Your task to perform on an android device: turn notification dots on Image 0: 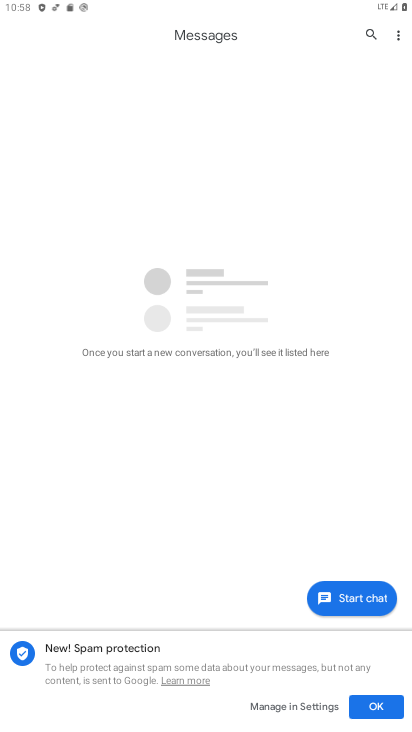
Step 0: press back button
Your task to perform on an android device: turn notification dots on Image 1: 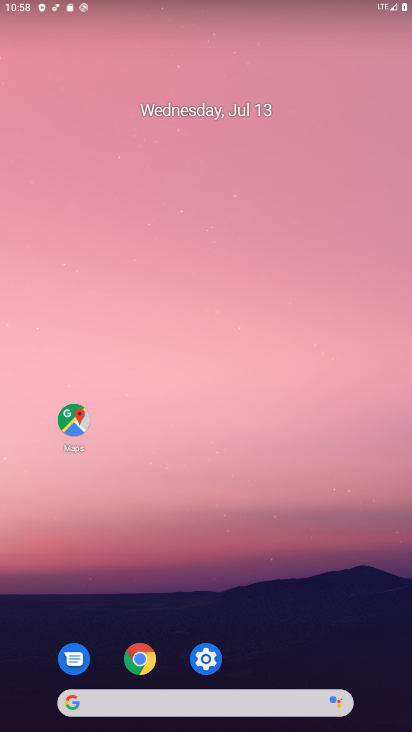
Step 1: drag from (220, 0) to (270, 4)
Your task to perform on an android device: turn notification dots on Image 2: 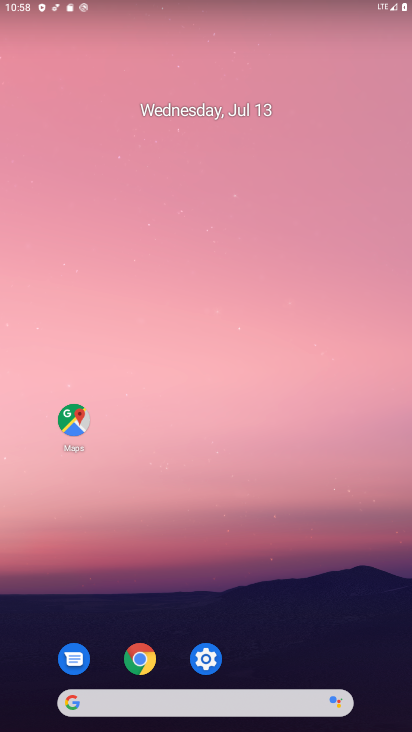
Step 2: click (76, 6)
Your task to perform on an android device: turn notification dots on Image 3: 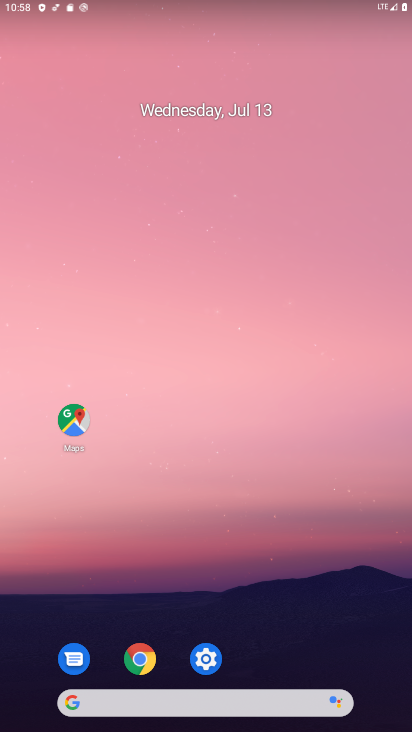
Step 3: drag from (238, 636) to (176, 160)
Your task to perform on an android device: turn notification dots on Image 4: 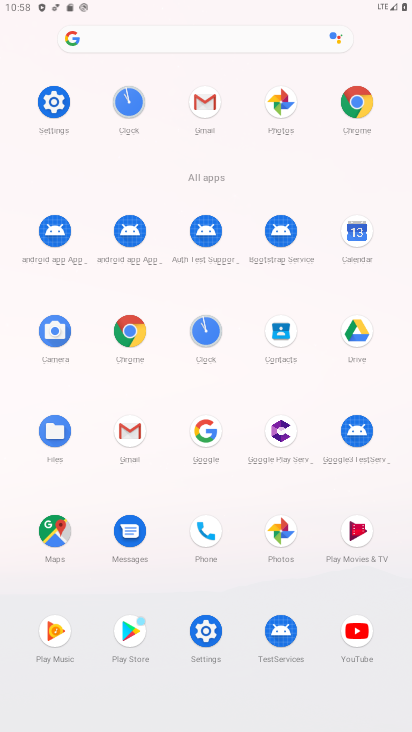
Step 4: click (205, 626)
Your task to perform on an android device: turn notification dots on Image 5: 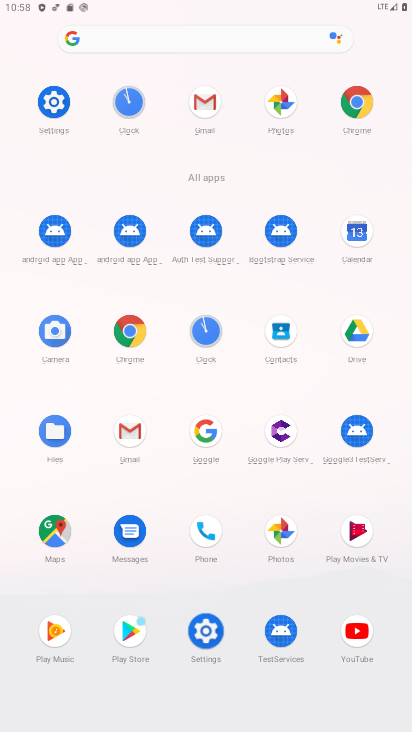
Step 5: click (205, 626)
Your task to perform on an android device: turn notification dots on Image 6: 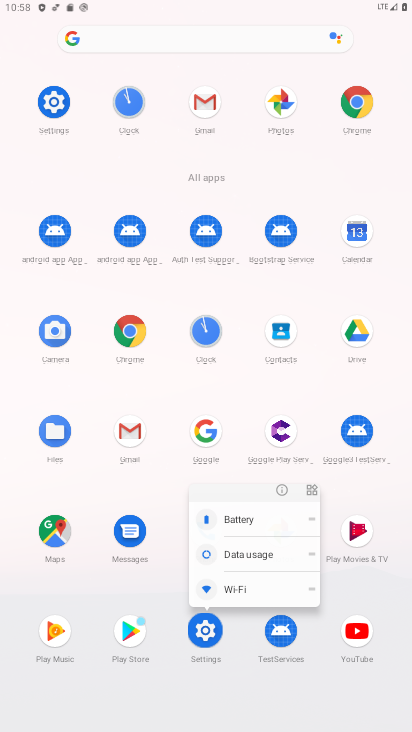
Step 6: click (205, 626)
Your task to perform on an android device: turn notification dots on Image 7: 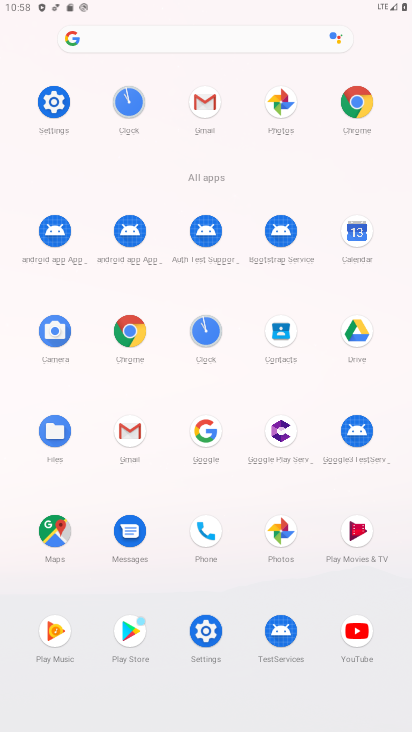
Step 7: click (205, 626)
Your task to perform on an android device: turn notification dots on Image 8: 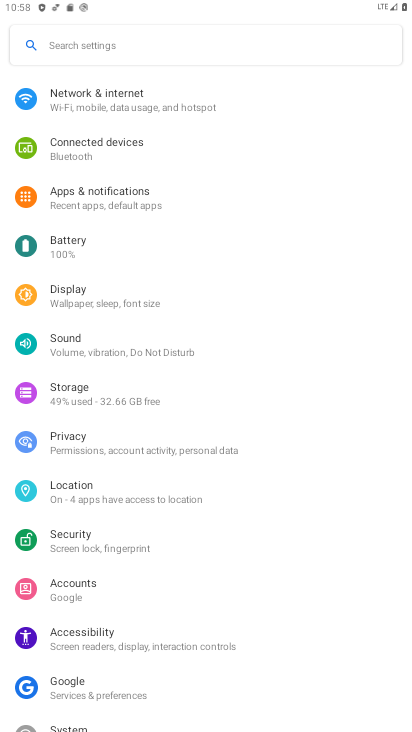
Step 8: click (205, 626)
Your task to perform on an android device: turn notification dots on Image 9: 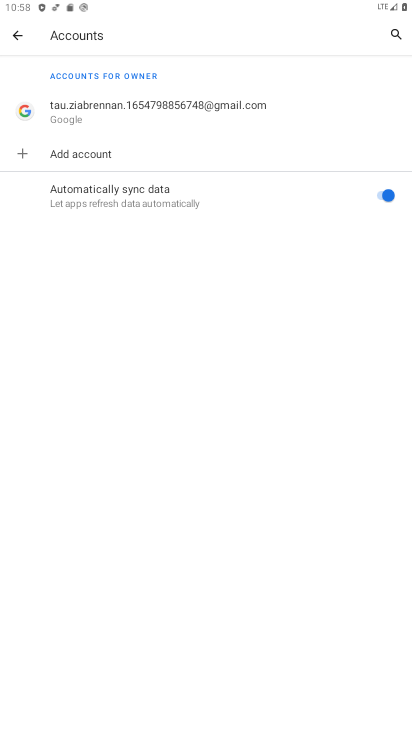
Step 9: click (19, 33)
Your task to perform on an android device: turn notification dots on Image 10: 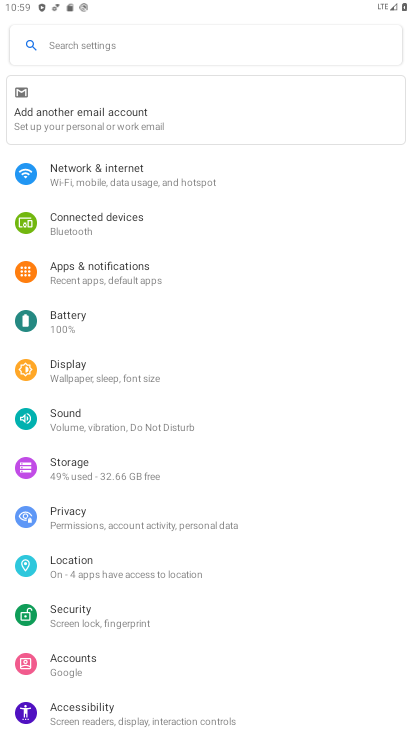
Step 10: click (107, 272)
Your task to perform on an android device: turn notification dots on Image 11: 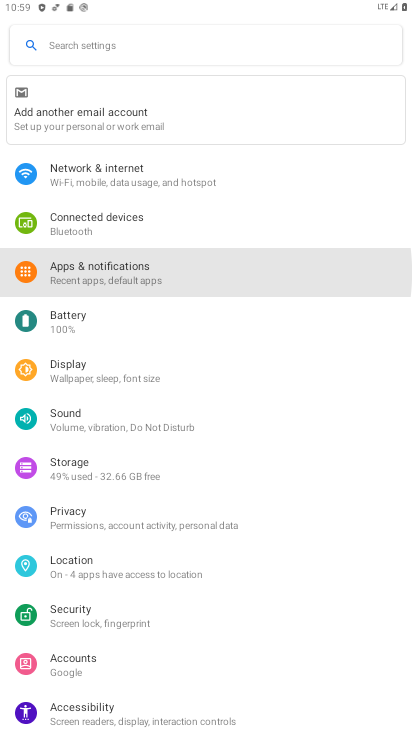
Step 11: click (107, 272)
Your task to perform on an android device: turn notification dots on Image 12: 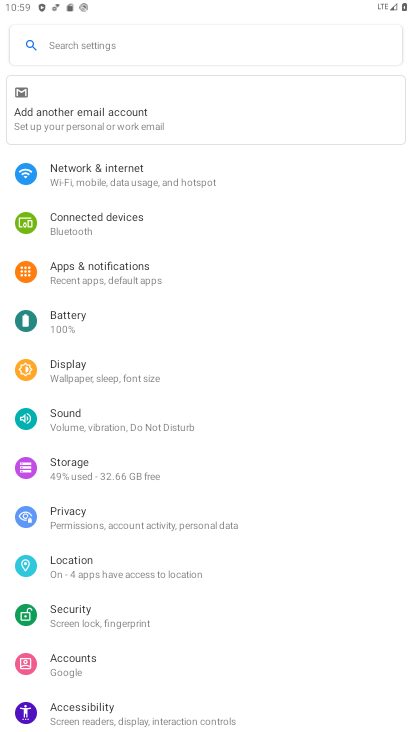
Step 12: click (107, 272)
Your task to perform on an android device: turn notification dots on Image 13: 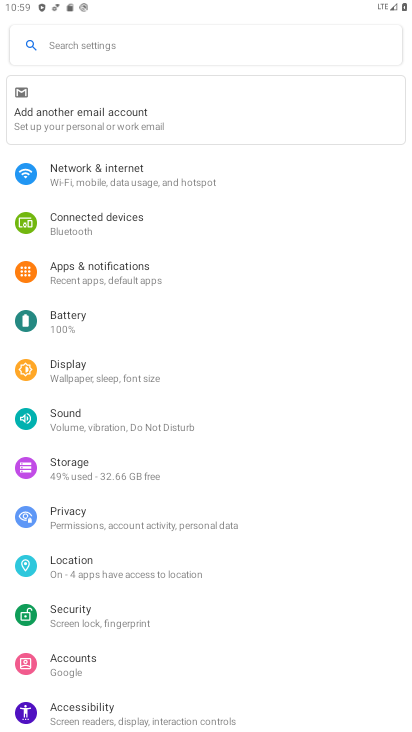
Step 13: click (107, 272)
Your task to perform on an android device: turn notification dots on Image 14: 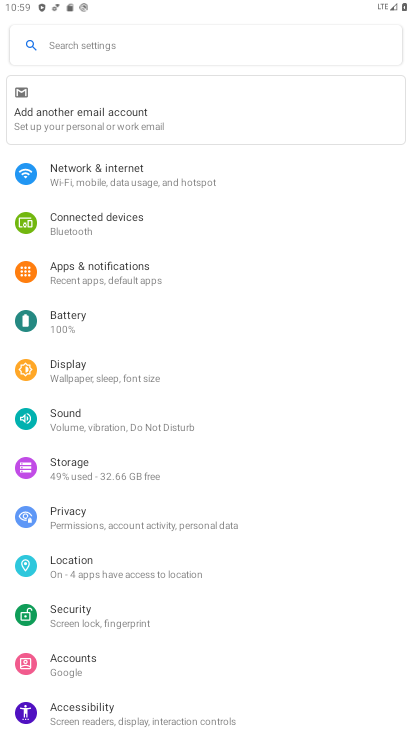
Step 14: click (108, 273)
Your task to perform on an android device: turn notification dots on Image 15: 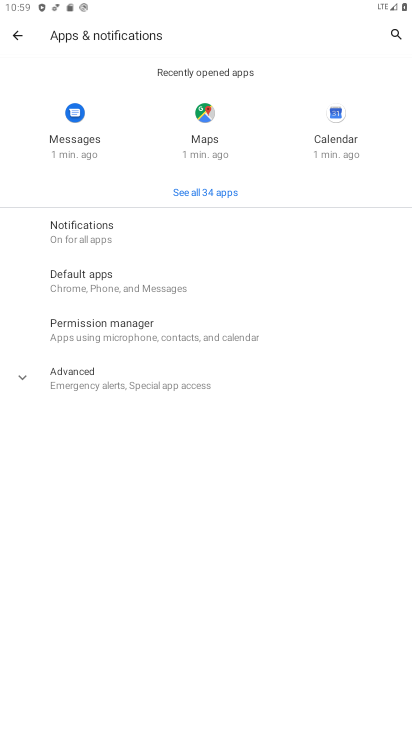
Step 15: click (78, 220)
Your task to perform on an android device: turn notification dots on Image 16: 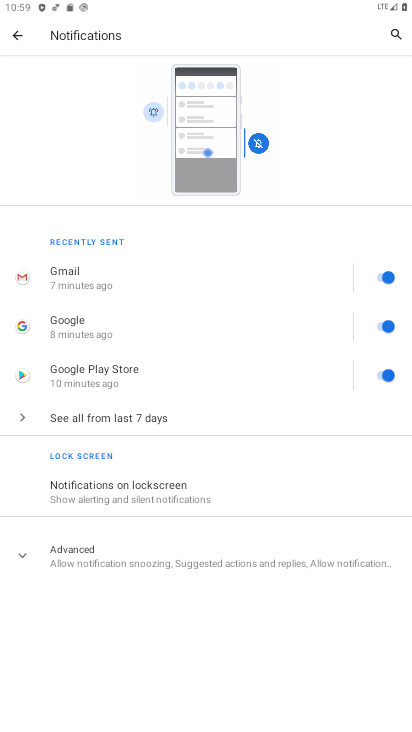
Step 16: click (97, 496)
Your task to perform on an android device: turn notification dots on Image 17: 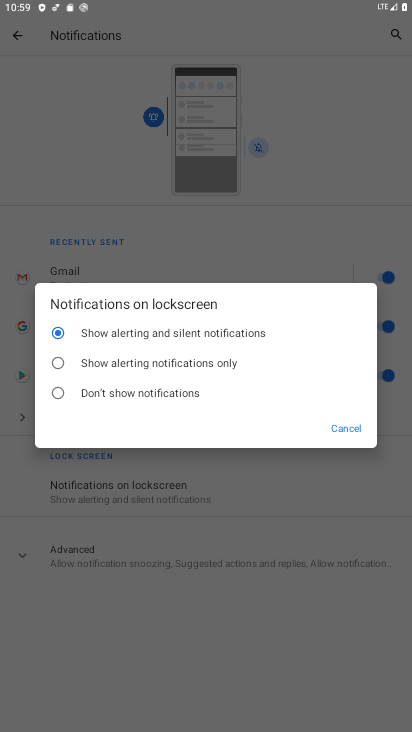
Step 17: click (349, 428)
Your task to perform on an android device: turn notification dots on Image 18: 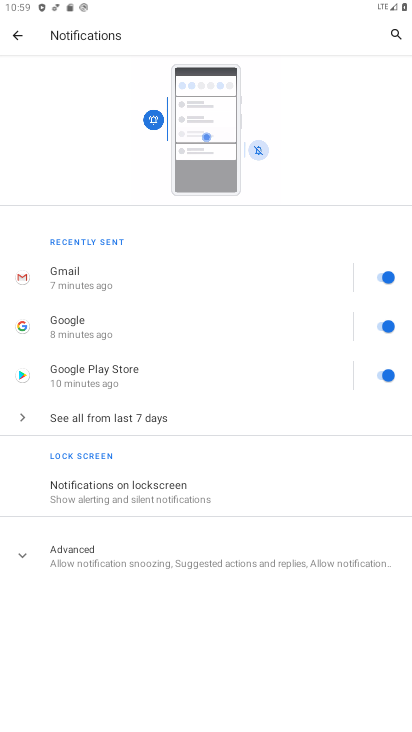
Step 18: click (87, 550)
Your task to perform on an android device: turn notification dots on Image 19: 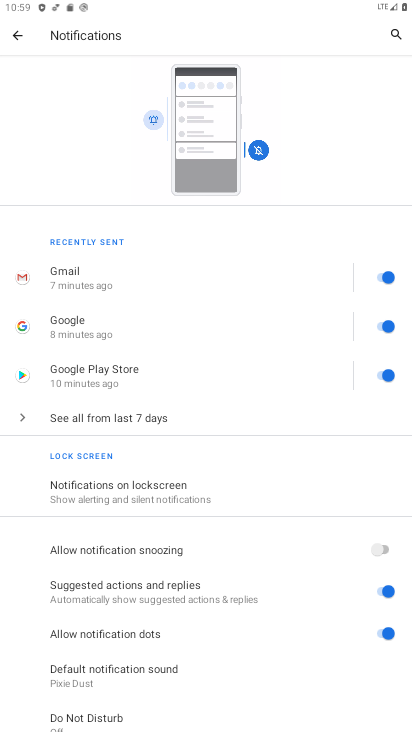
Step 19: click (251, 363)
Your task to perform on an android device: turn notification dots on Image 20: 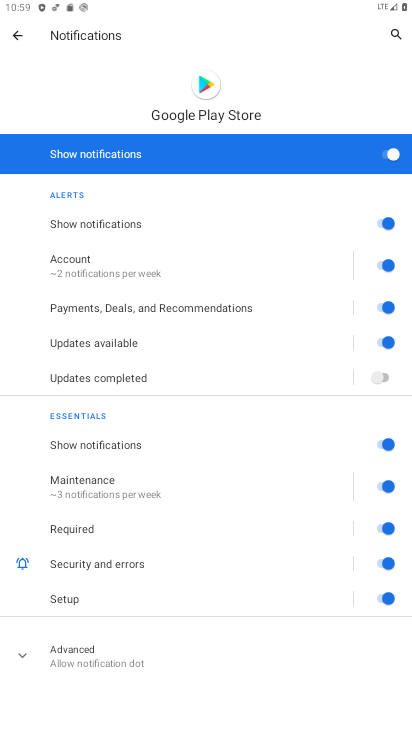
Step 20: click (250, 115)
Your task to perform on an android device: turn notification dots on Image 21: 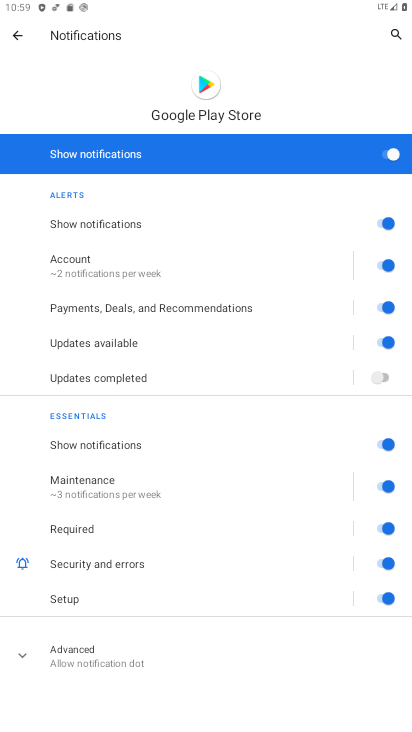
Step 21: drag from (226, 211) to (210, 30)
Your task to perform on an android device: turn notification dots on Image 22: 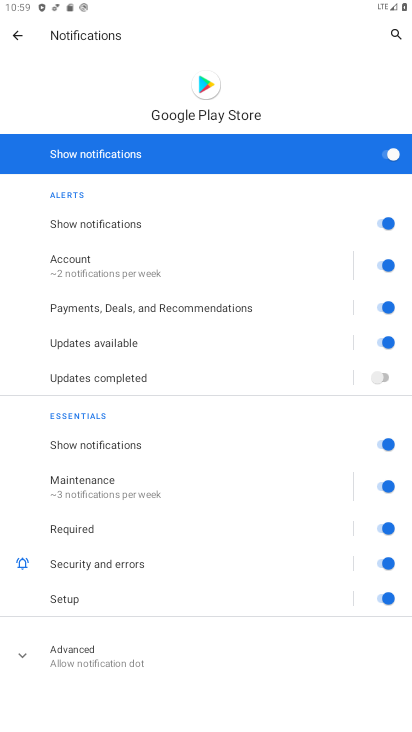
Step 22: click (226, 17)
Your task to perform on an android device: turn notification dots on Image 23: 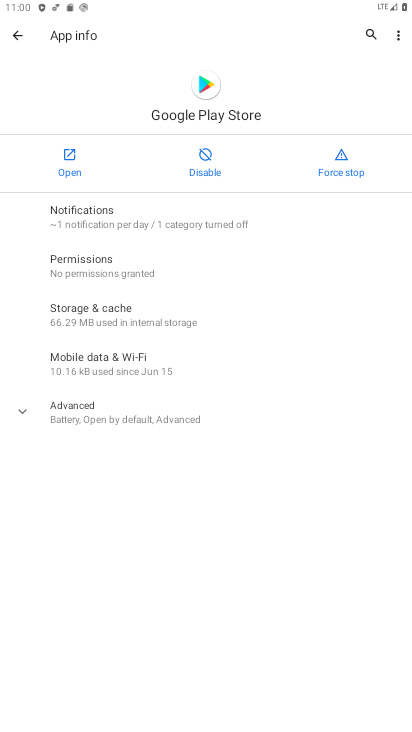
Step 23: click (20, 33)
Your task to perform on an android device: turn notification dots on Image 24: 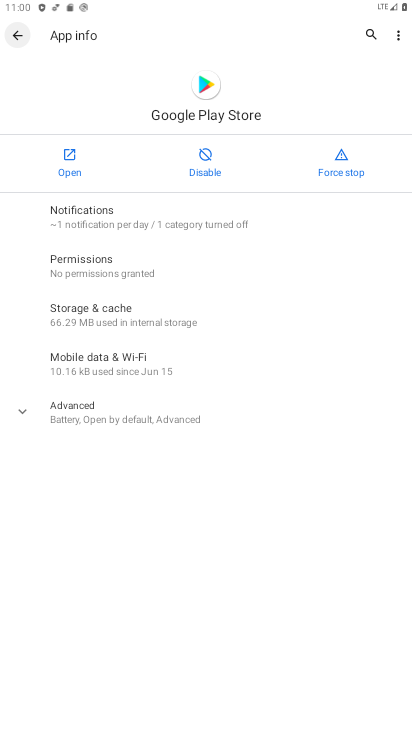
Step 24: click (19, 32)
Your task to perform on an android device: turn notification dots on Image 25: 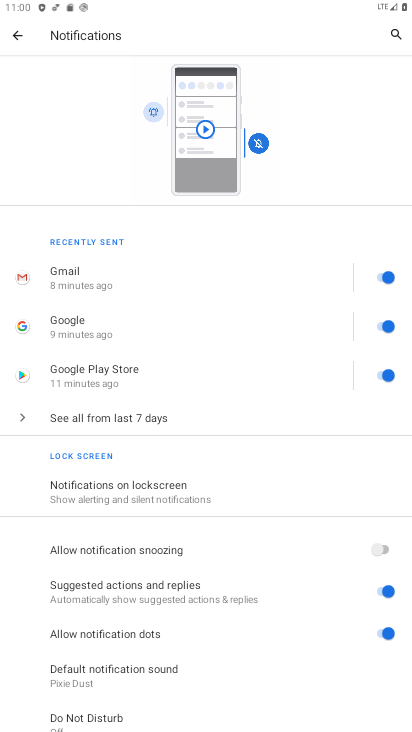
Step 25: click (382, 624)
Your task to perform on an android device: turn notification dots on Image 26: 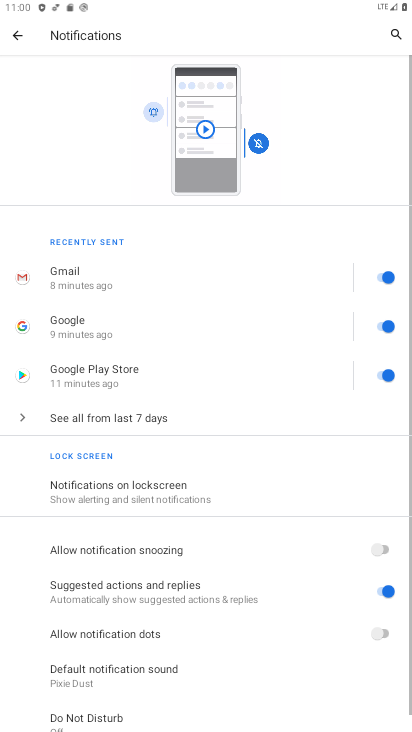
Step 26: task complete